Your task to perform on an android device: toggle show notifications on the lock screen Image 0: 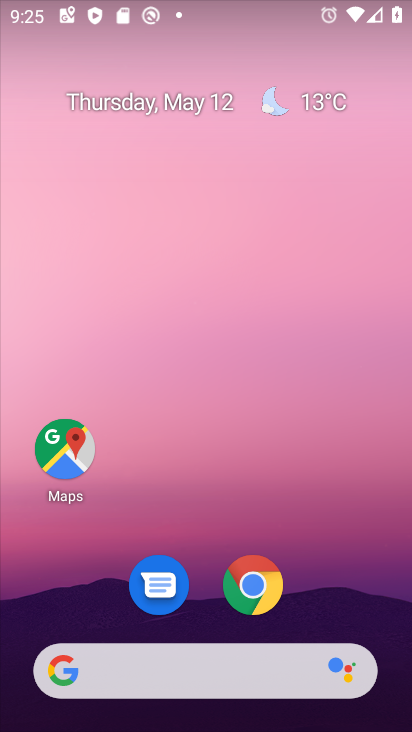
Step 0: drag from (219, 501) to (267, 65)
Your task to perform on an android device: toggle show notifications on the lock screen Image 1: 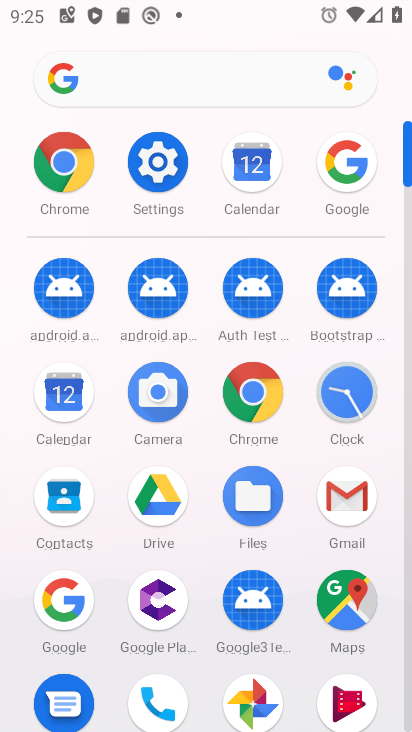
Step 1: click (167, 166)
Your task to perform on an android device: toggle show notifications on the lock screen Image 2: 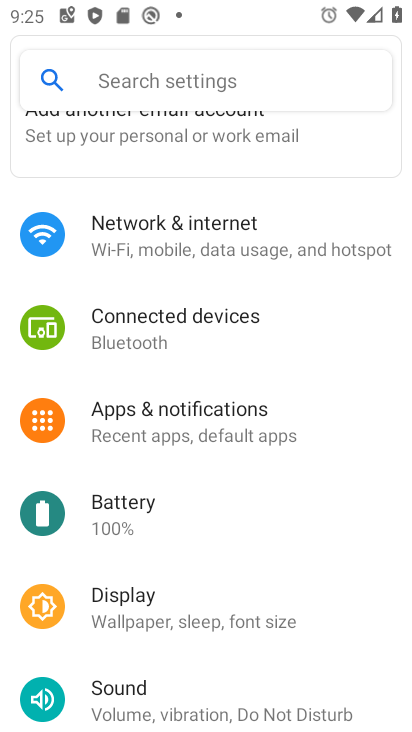
Step 2: click (207, 416)
Your task to perform on an android device: toggle show notifications on the lock screen Image 3: 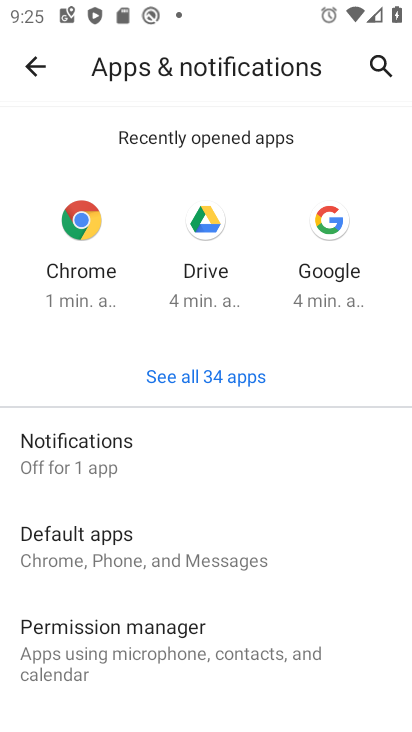
Step 3: click (158, 458)
Your task to perform on an android device: toggle show notifications on the lock screen Image 4: 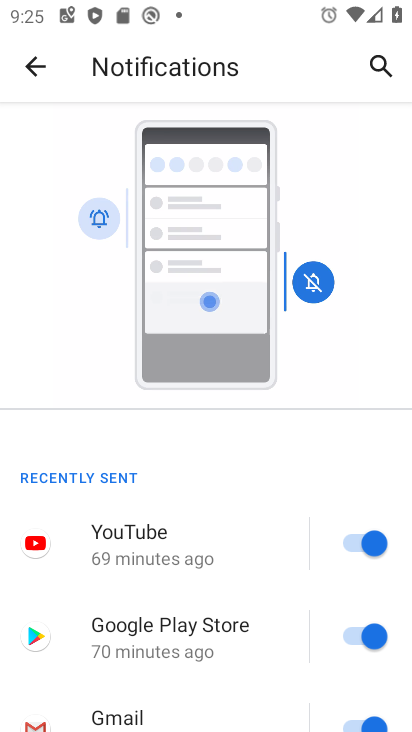
Step 4: drag from (234, 591) to (249, 172)
Your task to perform on an android device: toggle show notifications on the lock screen Image 5: 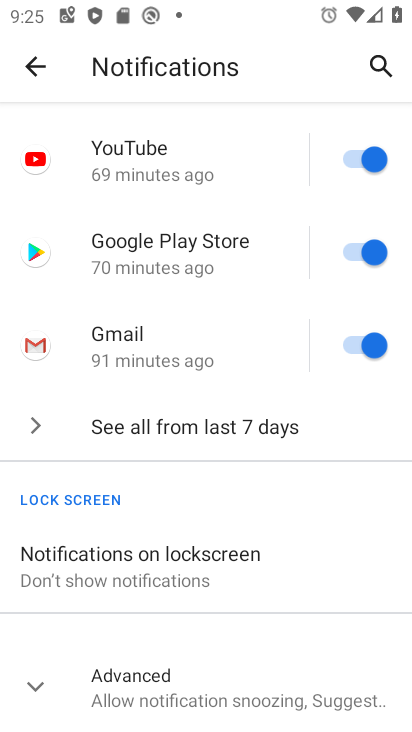
Step 5: click (213, 555)
Your task to perform on an android device: toggle show notifications on the lock screen Image 6: 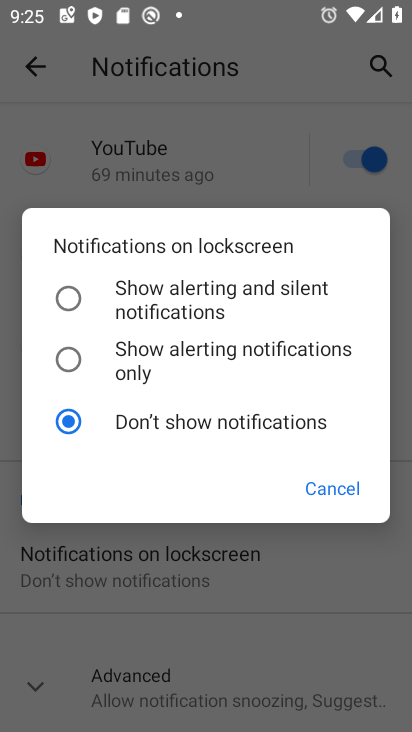
Step 6: click (62, 285)
Your task to perform on an android device: toggle show notifications on the lock screen Image 7: 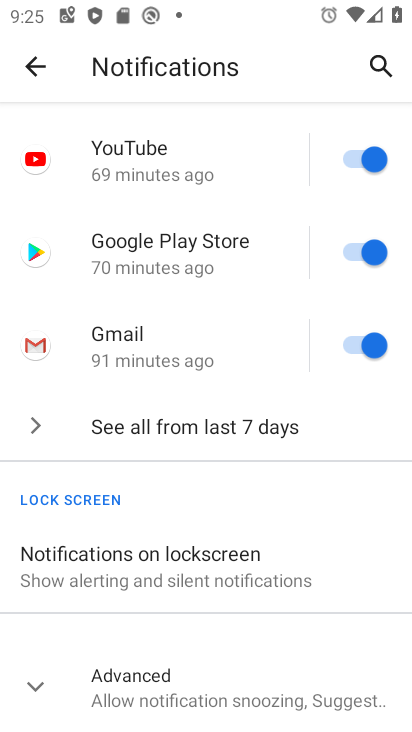
Step 7: task complete